Your task to perform on an android device: all mails in gmail Image 0: 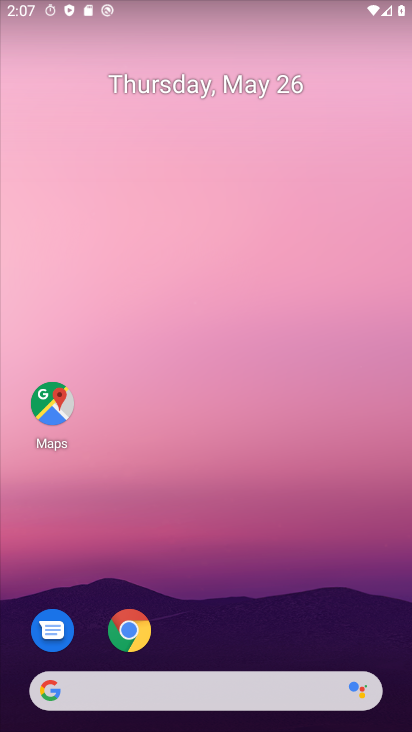
Step 0: drag from (213, 496) to (247, 142)
Your task to perform on an android device: all mails in gmail Image 1: 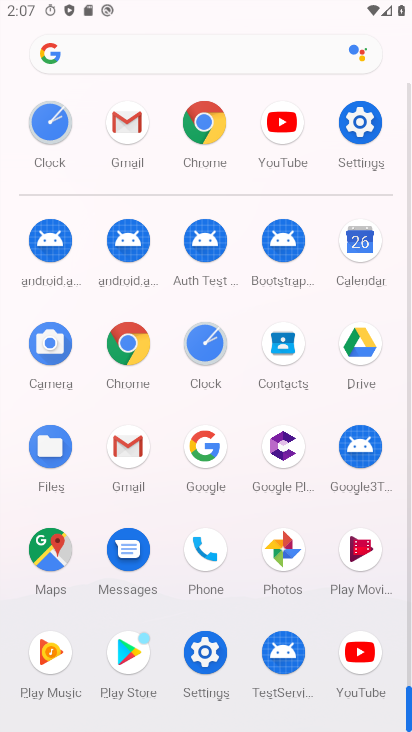
Step 1: click (118, 449)
Your task to perform on an android device: all mails in gmail Image 2: 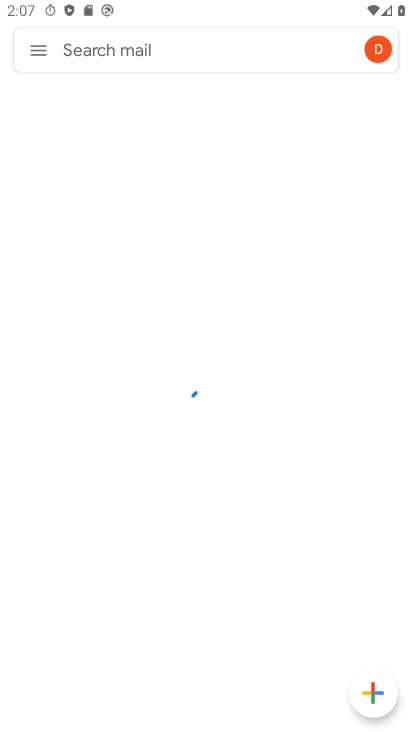
Step 2: click (43, 56)
Your task to perform on an android device: all mails in gmail Image 3: 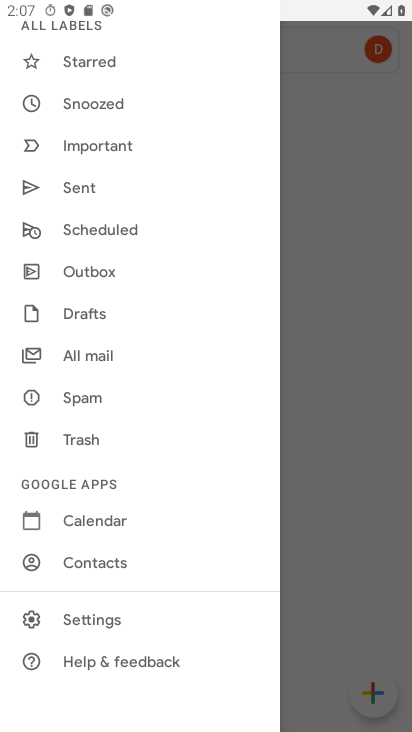
Step 3: drag from (146, 224) to (135, 571)
Your task to perform on an android device: all mails in gmail Image 4: 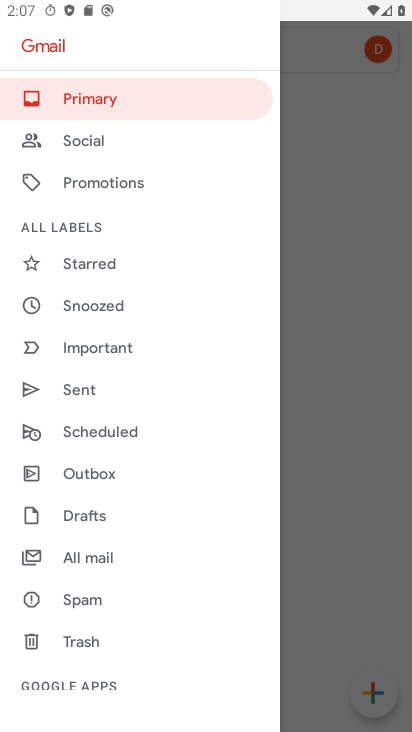
Step 4: click (114, 559)
Your task to perform on an android device: all mails in gmail Image 5: 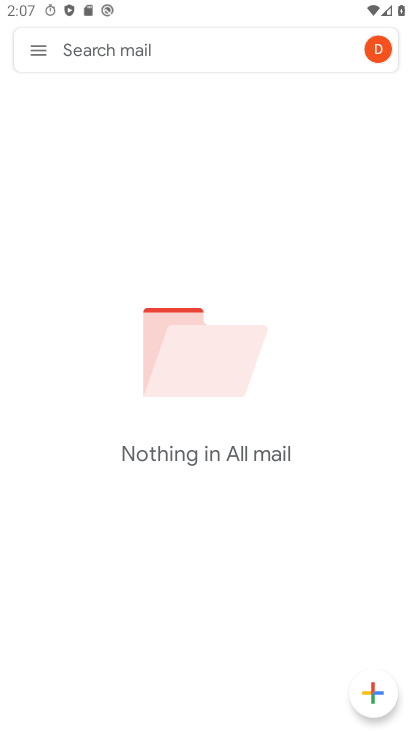
Step 5: task complete